Your task to perform on an android device: Open my contact list Image 0: 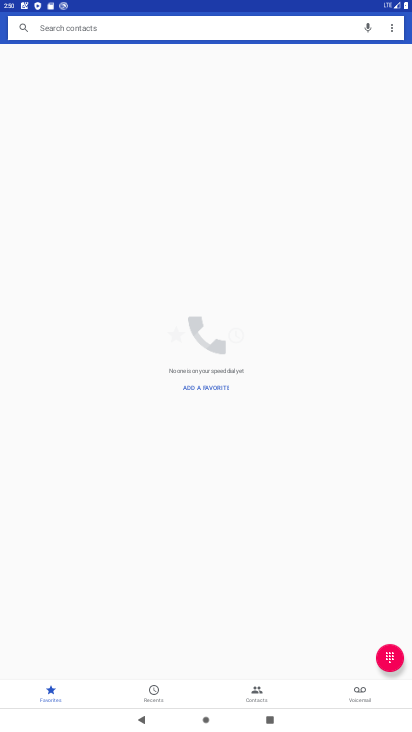
Step 0: drag from (164, 634) to (250, 319)
Your task to perform on an android device: Open my contact list Image 1: 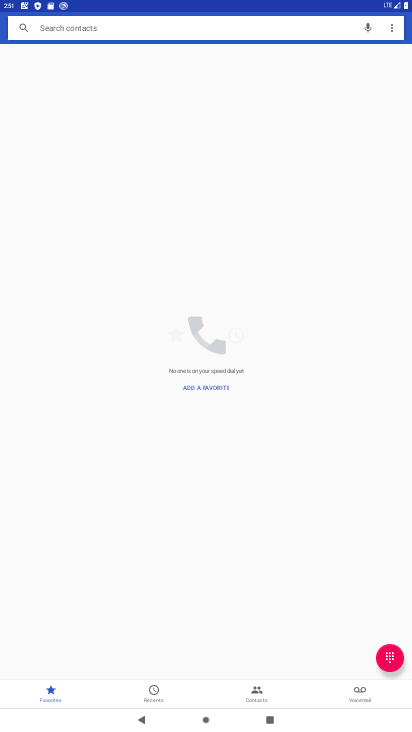
Step 1: press home button
Your task to perform on an android device: Open my contact list Image 2: 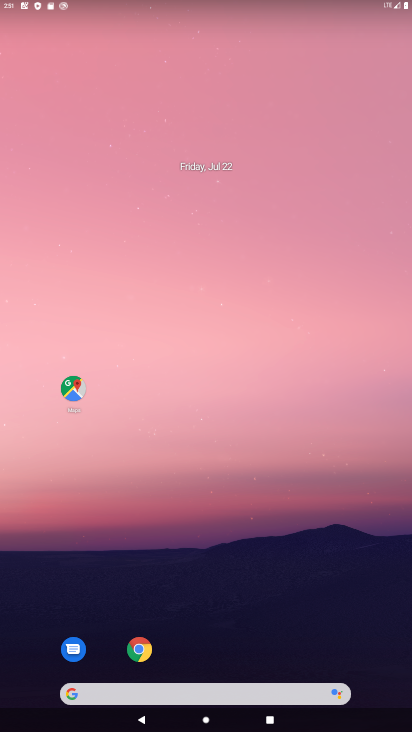
Step 2: drag from (221, 648) to (266, 213)
Your task to perform on an android device: Open my contact list Image 3: 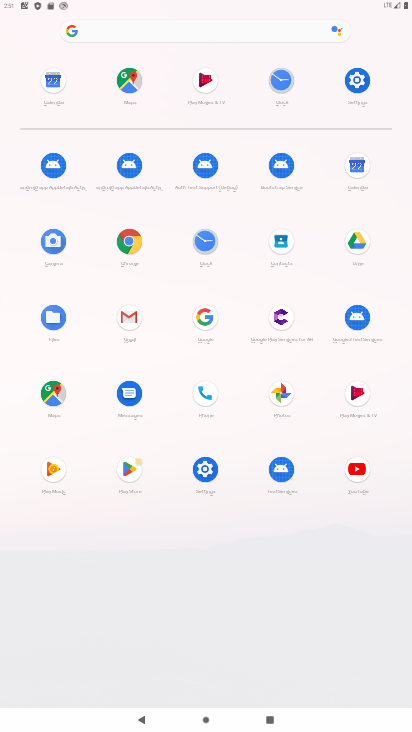
Step 3: click (282, 245)
Your task to perform on an android device: Open my contact list Image 4: 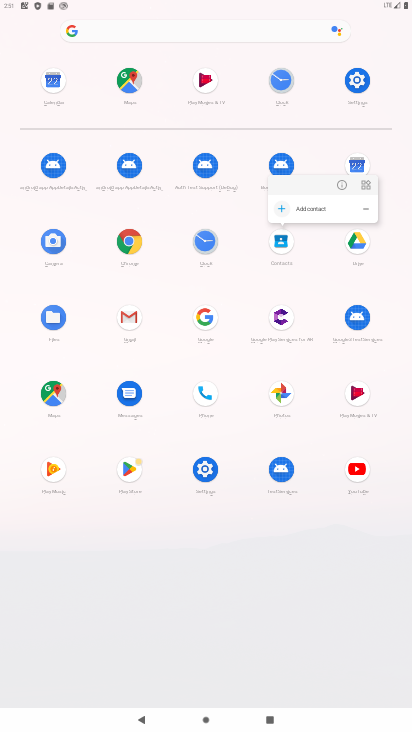
Step 4: drag from (217, 555) to (259, 242)
Your task to perform on an android device: Open my contact list Image 5: 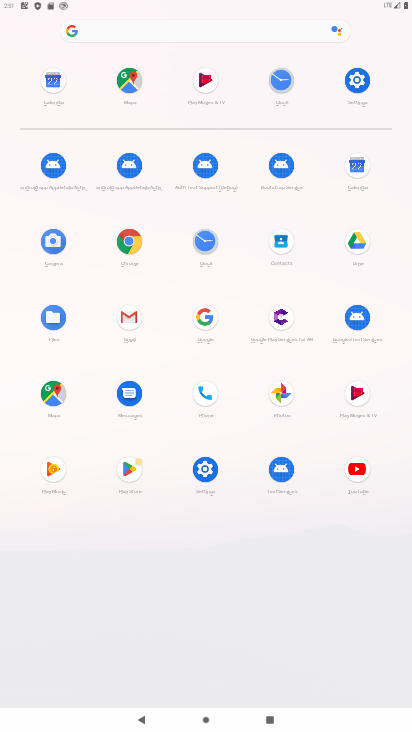
Step 5: click (279, 254)
Your task to perform on an android device: Open my contact list Image 6: 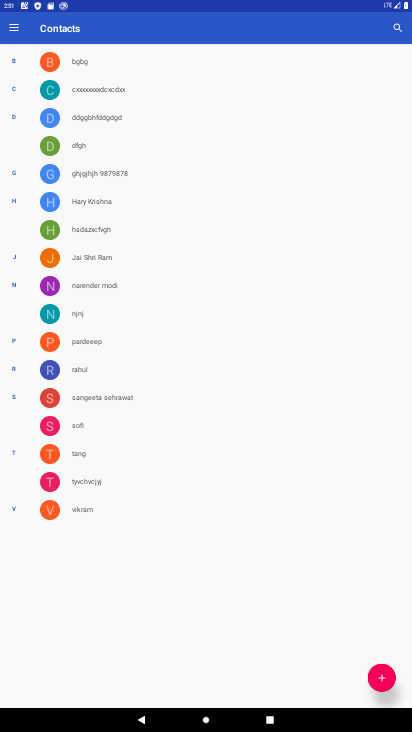
Step 6: task complete